Your task to perform on an android device: all mails in gmail Image 0: 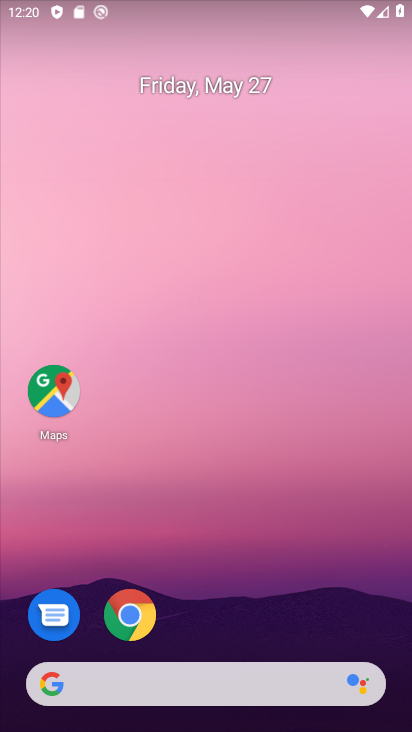
Step 0: press home button
Your task to perform on an android device: all mails in gmail Image 1: 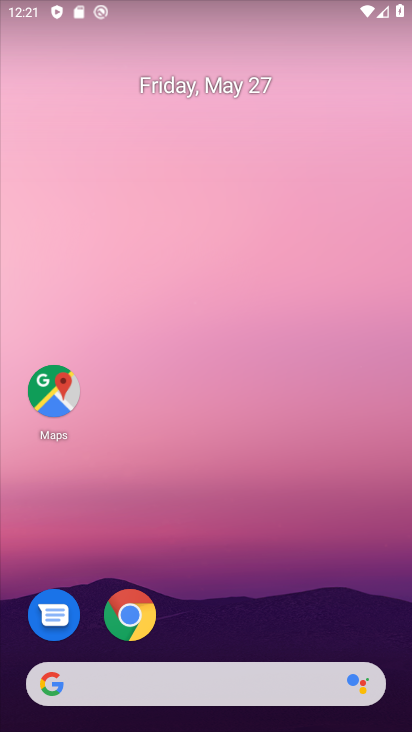
Step 1: drag from (269, 624) to (208, 175)
Your task to perform on an android device: all mails in gmail Image 2: 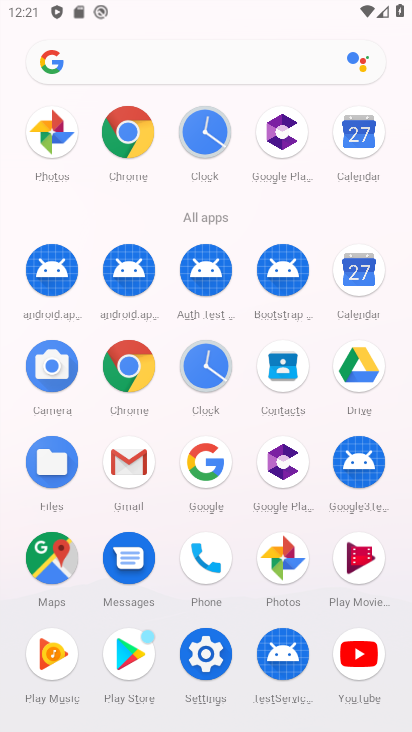
Step 2: click (135, 468)
Your task to perform on an android device: all mails in gmail Image 3: 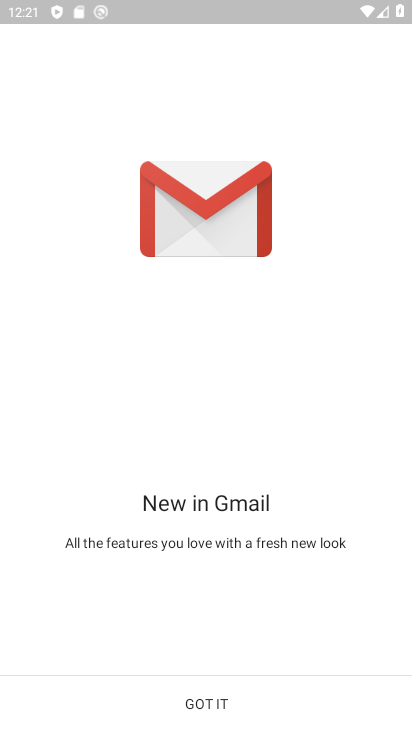
Step 3: click (186, 700)
Your task to perform on an android device: all mails in gmail Image 4: 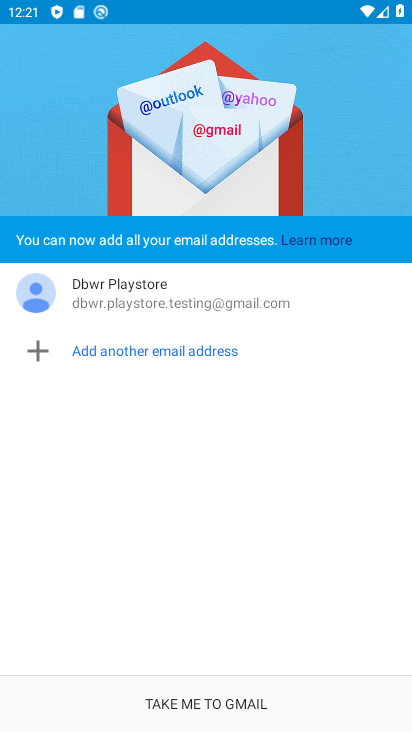
Step 4: click (186, 700)
Your task to perform on an android device: all mails in gmail Image 5: 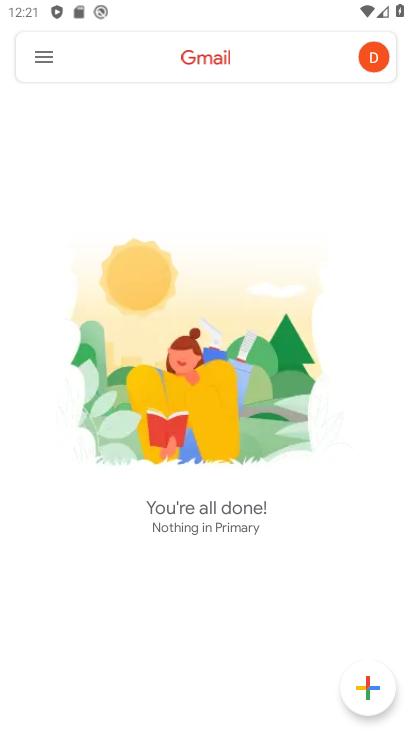
Step 5: click (42, 60)
Your task to perform on an android device: all mails in gmail Image 6: 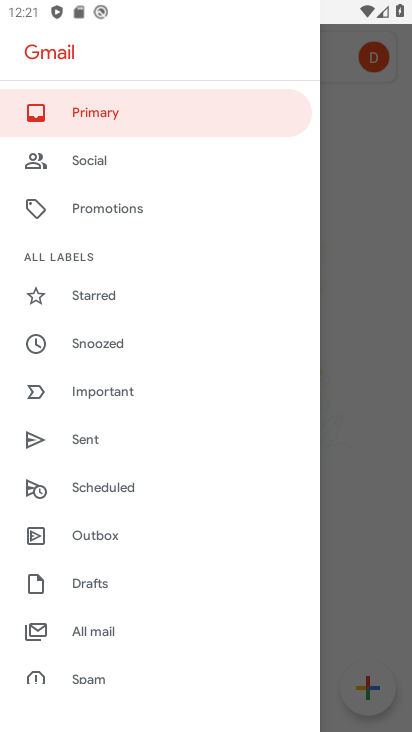
Step 6: click (101, 631)
Your task to perform on an android device: all mails in gmail Image 7: 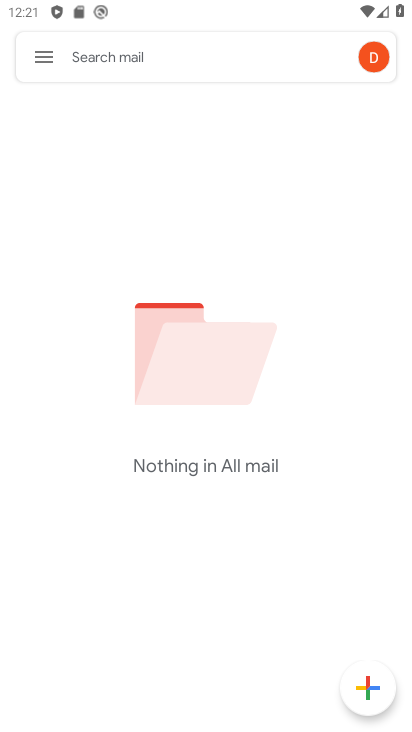
Step 7: task complete